Your task to perform on an android device: refresh tabs in the chrome app Image 0: 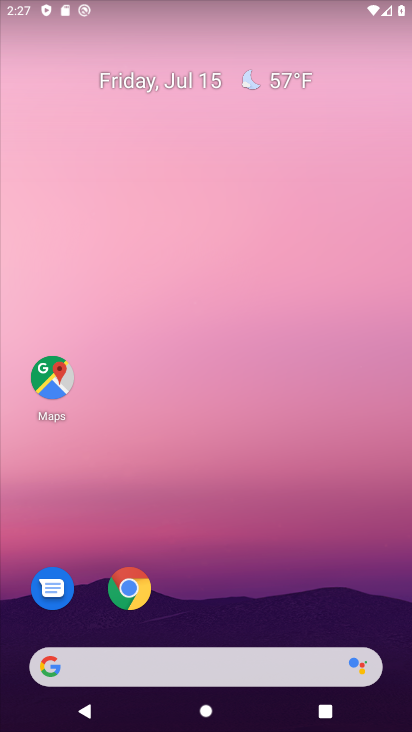
Step 0: click (136, 590)
Your task to perform on an android device: refresh tabs in the chrome app Image 1: 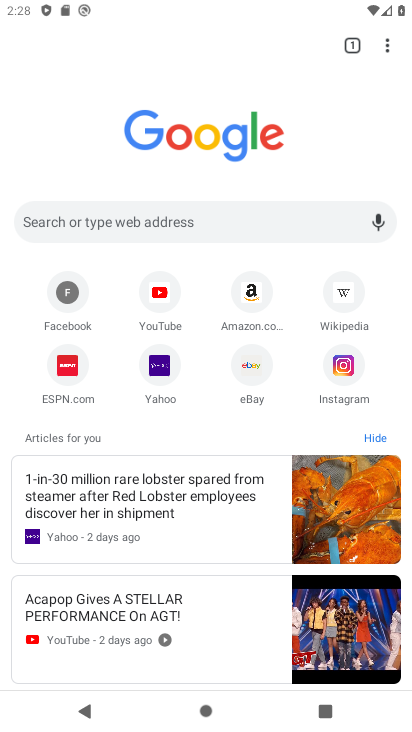
Step 1: click (386, 41)
Your task to perform on an android device: refresh tabs in the chrome app Image 2: 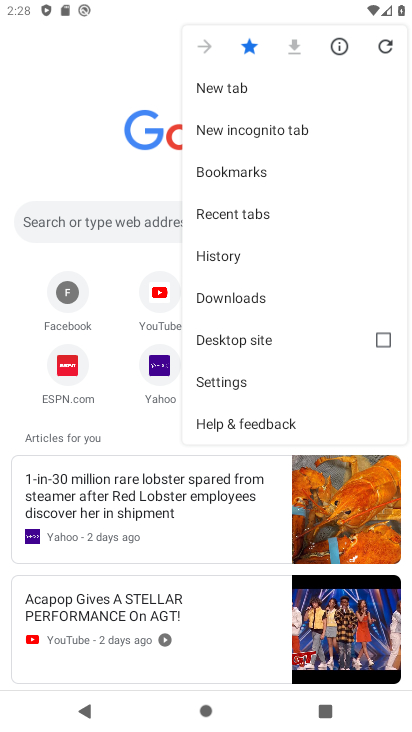
Step 2: click (387, 48)
Your task to perform on an android device: refresh tabs in the chrome app Image 3: 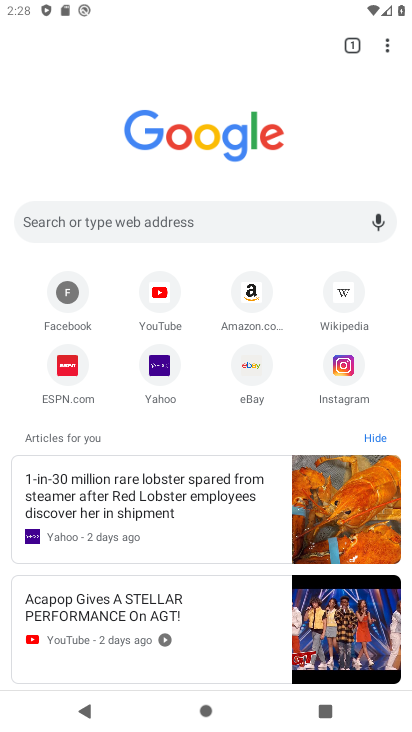
Step 3: task complete